Your task to perform on an android device: turn smart compose on in the gmail app Image 0: 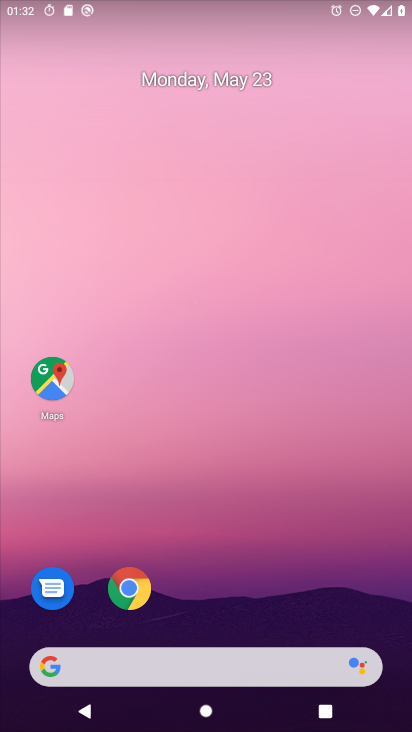
Step 0: drag from (247, 680) to (245, 99)
Your task to perform on an android device: turn smart compose on in the gmail app Image 1: 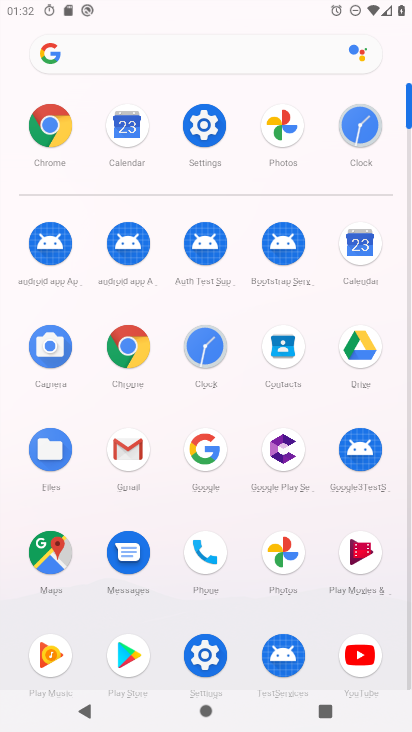
Step 1: click (135, 444)
Your task to perform on an android device: turn smart compose on in the gmail app Image 2: 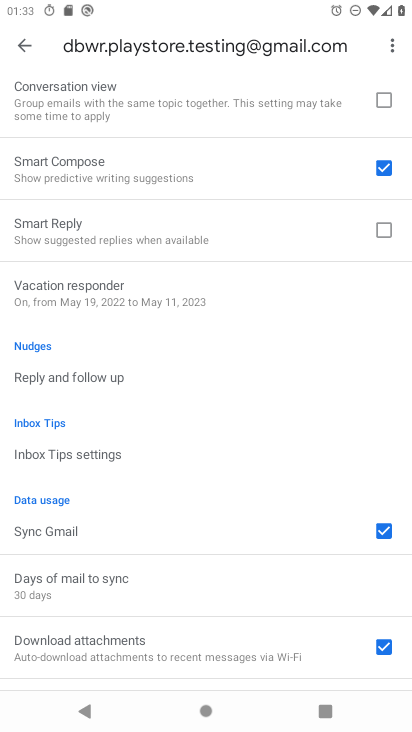
Step 2: drag from (175, 590) to (149, 307)
Your task to perform on an android device: turn smart compose on in the gmail app Image 3: 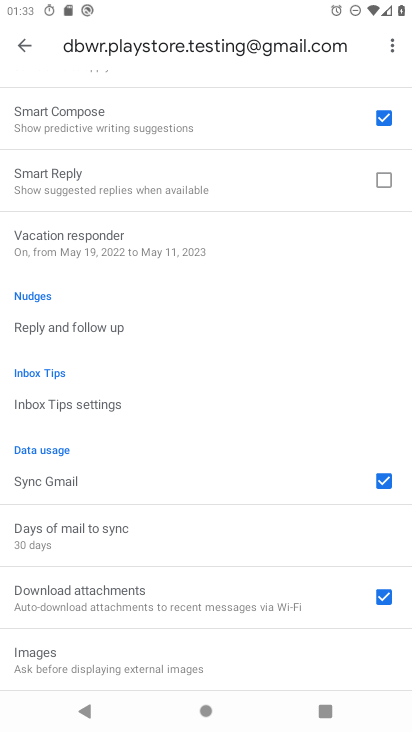
Step 3: drag from (185, 566) to (231, 524)
Your task to perform on an android device: turn smart compose on in the gmail app Image 4: 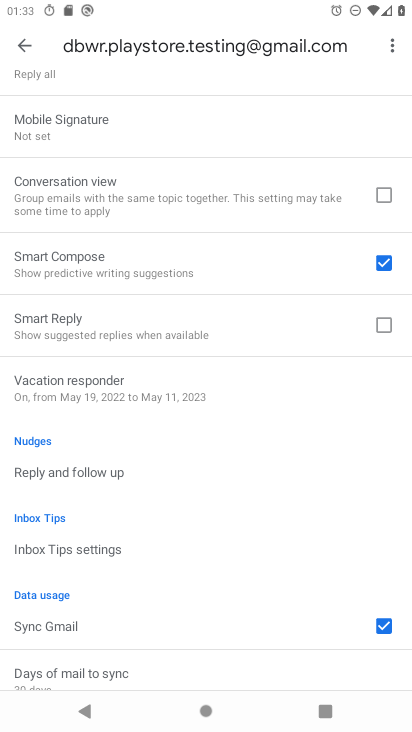
Step 4: click (383, 260)
Your task to perform on an android device: turn smart compose on in the gmail app Image 5: 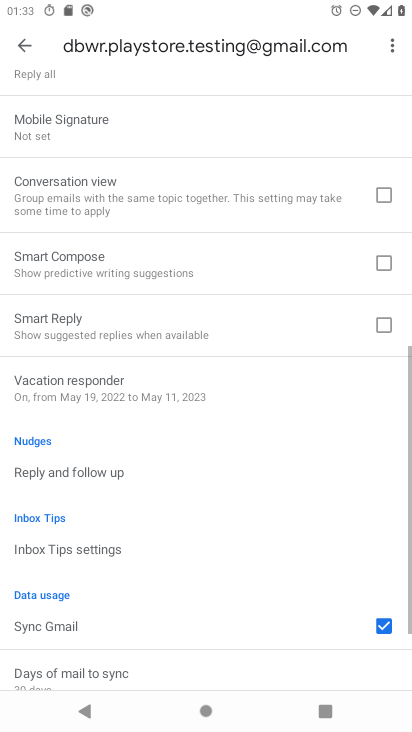
Step 5: click (383, 259)
Your task to perform on an android device: turn smart compose on in the gmail app Image 6: 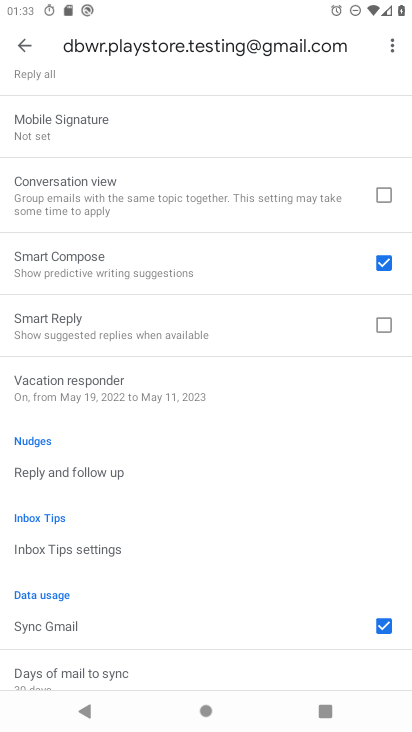
Step 6: task complete